Your task to perform on an android device: check data usage Image 0: 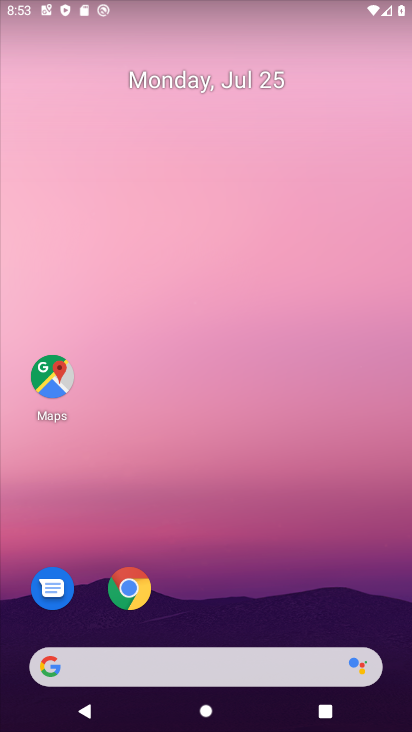
Step 0: drag from (223, 656) to (245, 192)
Your task to perform on an android device: check data usage Image 1: 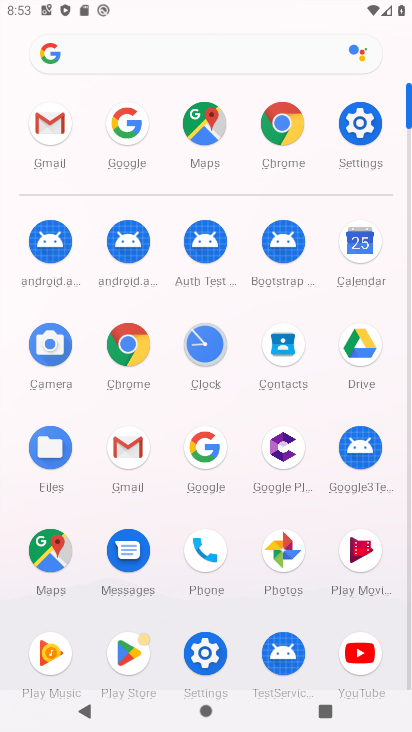
Step 1: click (361, 131)
Your task to perform on an android device: check data usage Image 2: 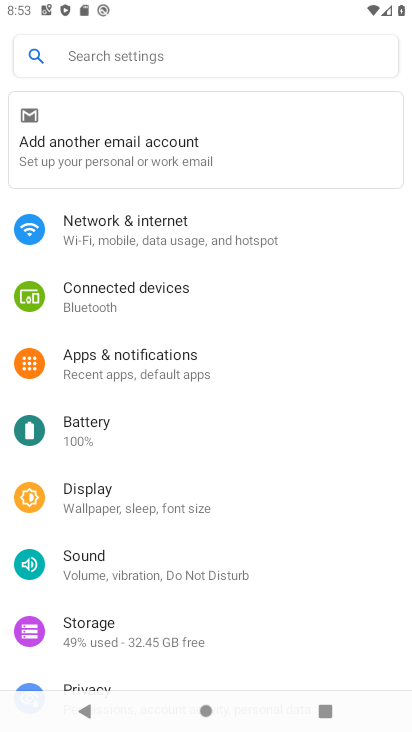
Step 2: click (187, 237)
Your task to perform on an android device: check data usage Image 3: 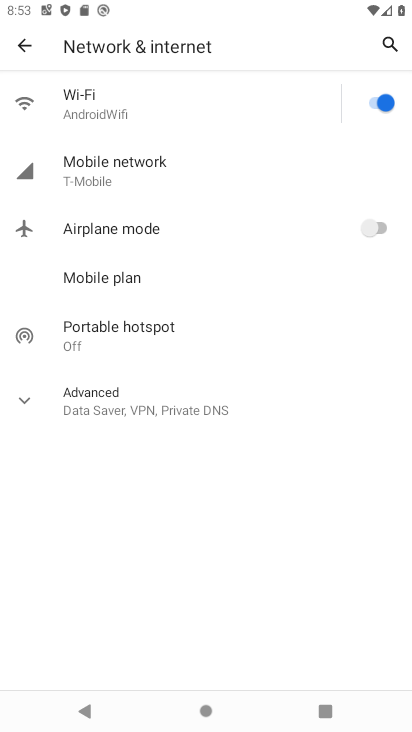
Step 3: click (131, 185)
Your task to perform on an android device: check data usage Image 4: 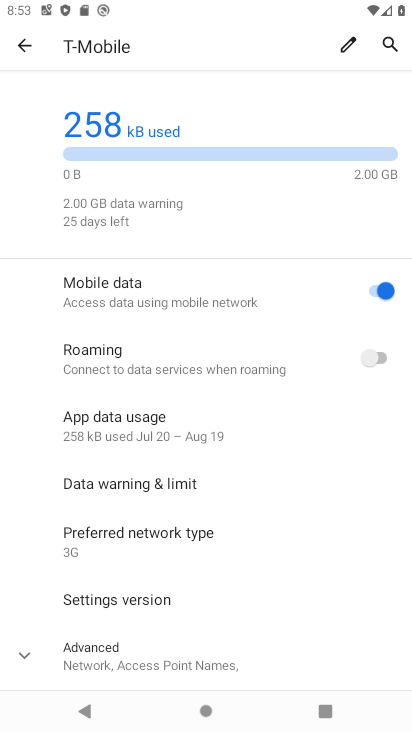
Step 4: task complete